Your task to perform on an android device: turn off location history Image 0: 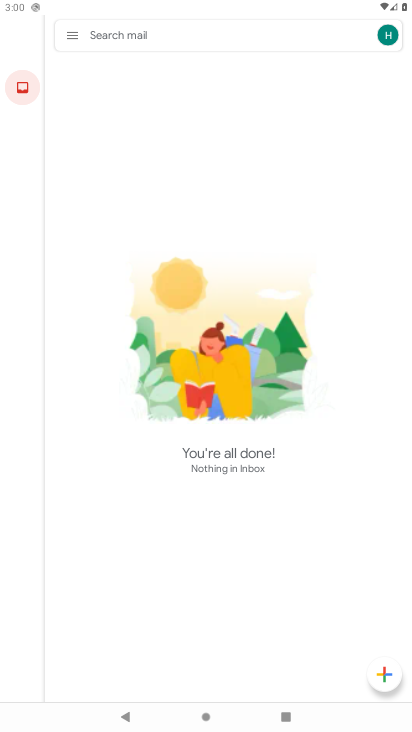
Step 0: press home button
Your task to perform on an android device: turn off location history Image 1: 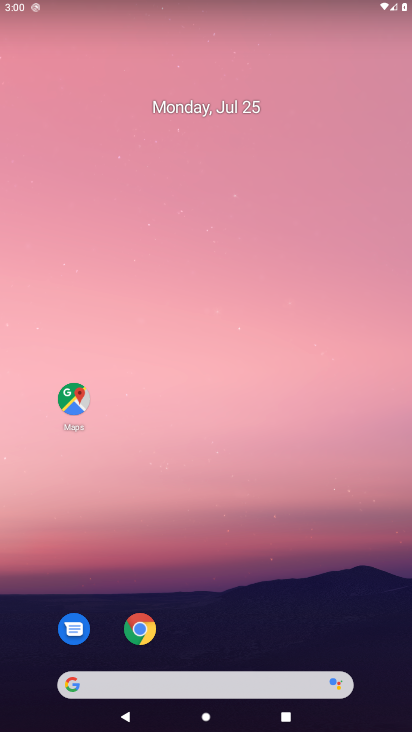
Step 1: drag from (43, 659) to (214, 191)
Your task to perform on an android device: turn off location history Image 2: 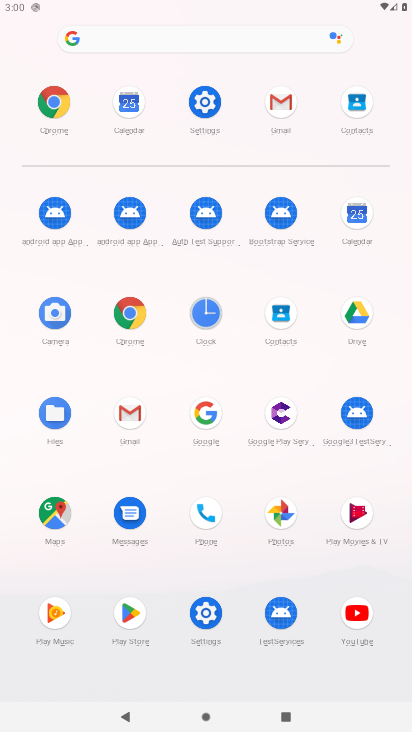
Step 2: click (215, 620)
Your task to perform on an android device: turn off location history Image 3: 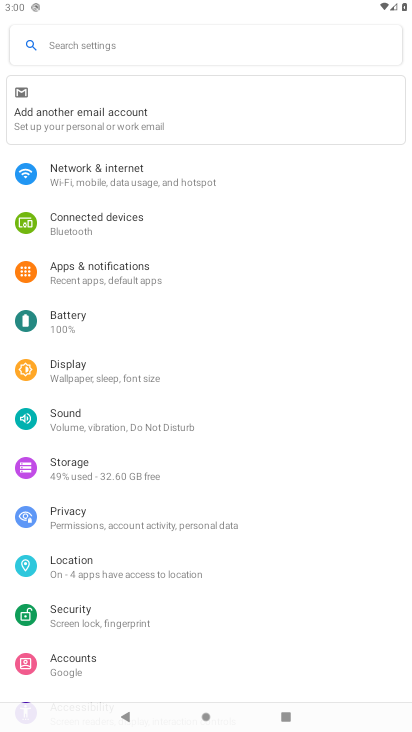
Step 3: click (63, 566)
Your task to perform on an android device: turn off location history Image 4: 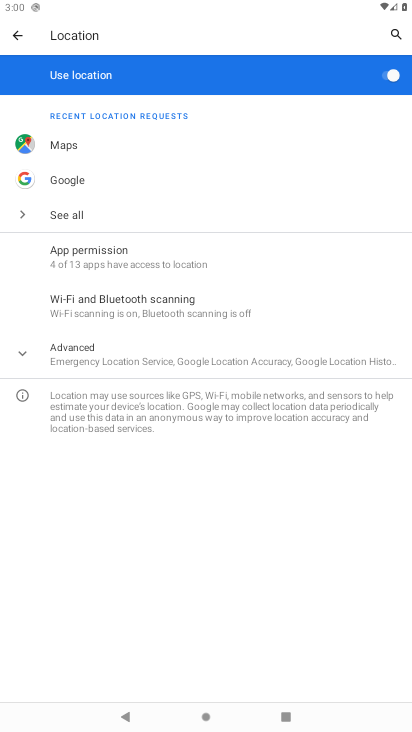
Step 4: click (67, 356)
Your task to perform on an android device: turn off location history Image 5: 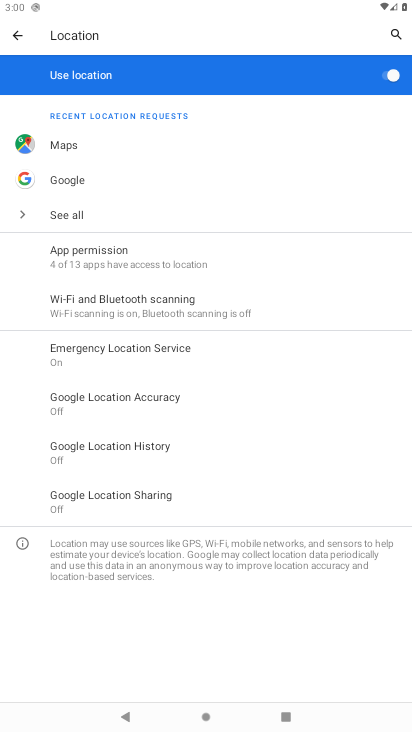
Step 5: task complete